Your task to perform on an android device: Open notification settings Image 0: 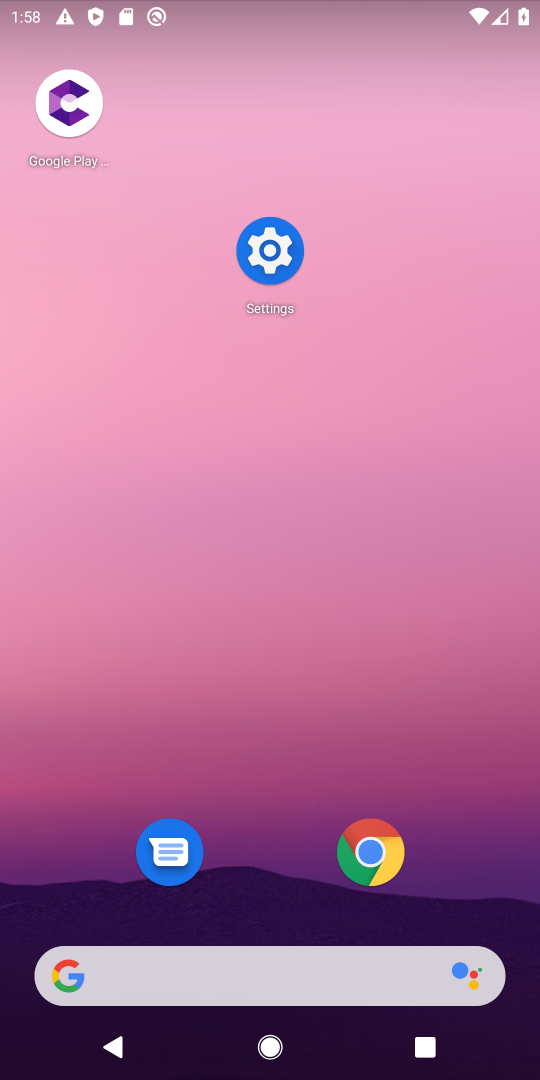
Step 0: click (253, 254)
Your task to perform on an android device: Open notification settings Image 1: 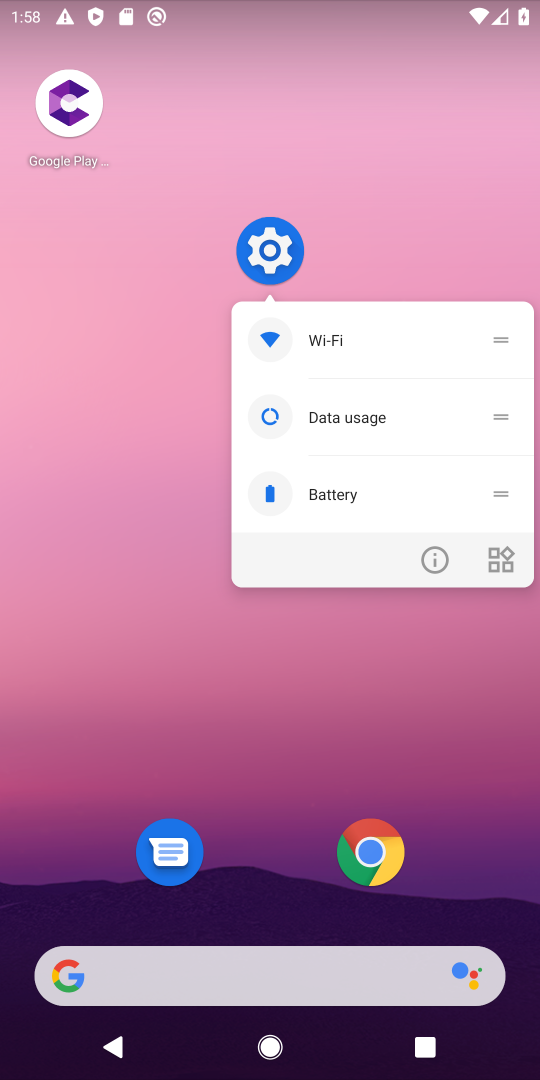
Step 1: click (253, 255)
Your task to perform on an android device: Open notification settings Image 2: 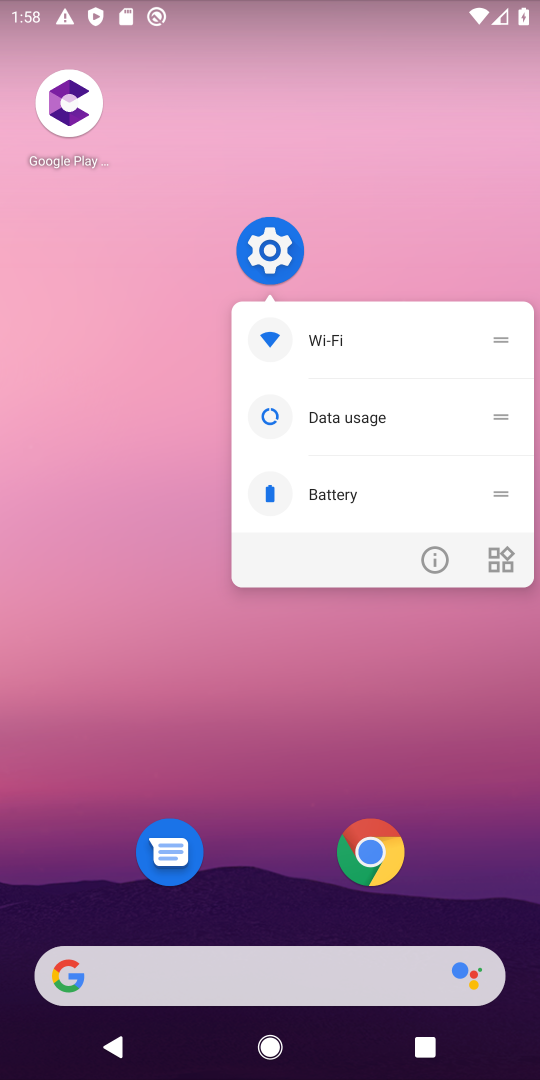
Step 2: click (253, 257)
Your task to perform on an android device: Open notification settings Image 3: 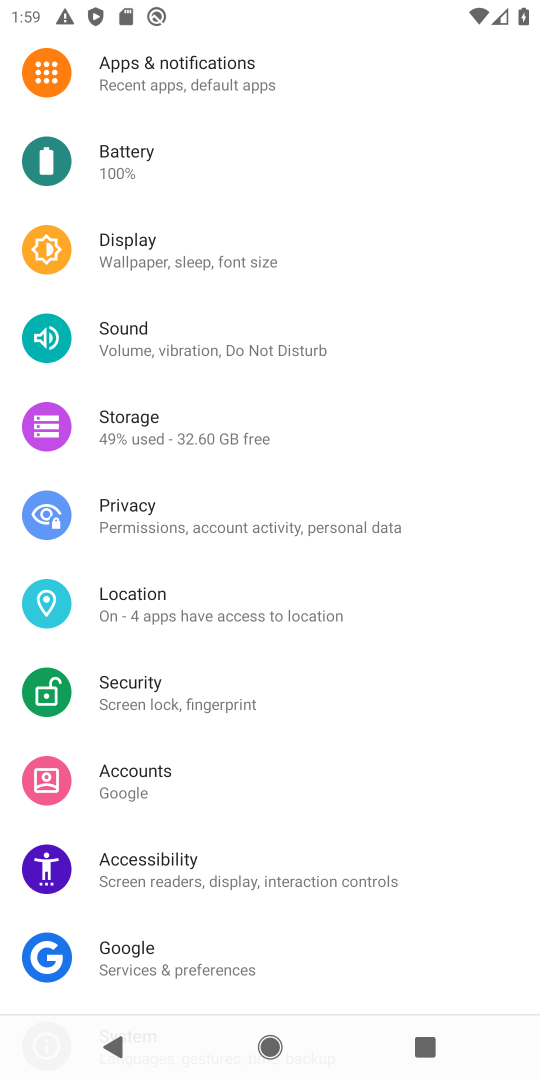
Step 3: click (235, 65)
Your task to perform on an android device: Open notification settings Image 4: 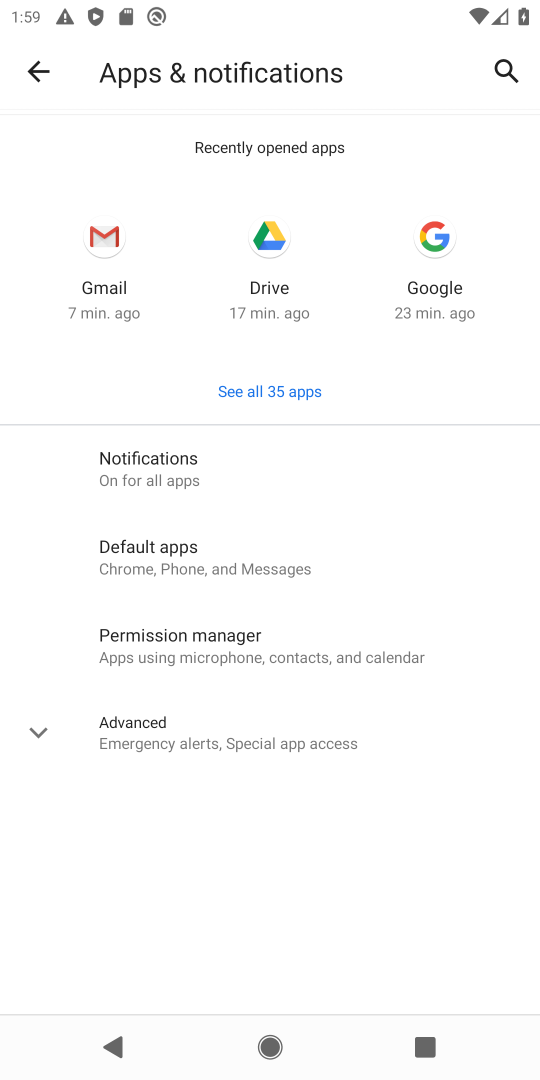
Step 4: task complete